Your task to perform on an android device: Open notification settings Image 0: 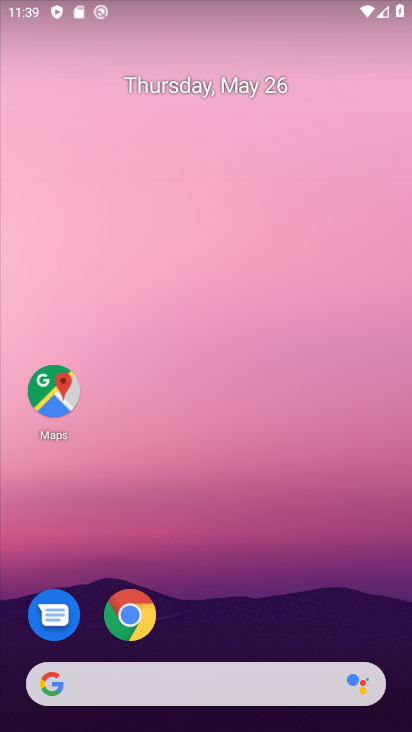
Step 0: press home button
Your task to perform on an android device: Open notification settings Image 1: 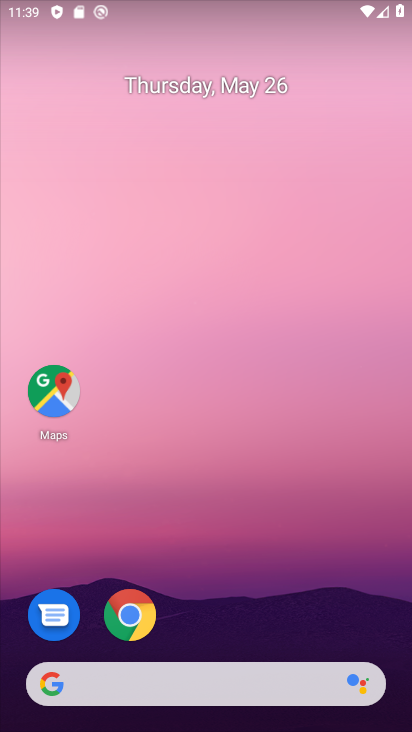
Step 1: drag from (280, 646) to (237, 41)
Your task to perform on an android device: Open notification settings Image 2: 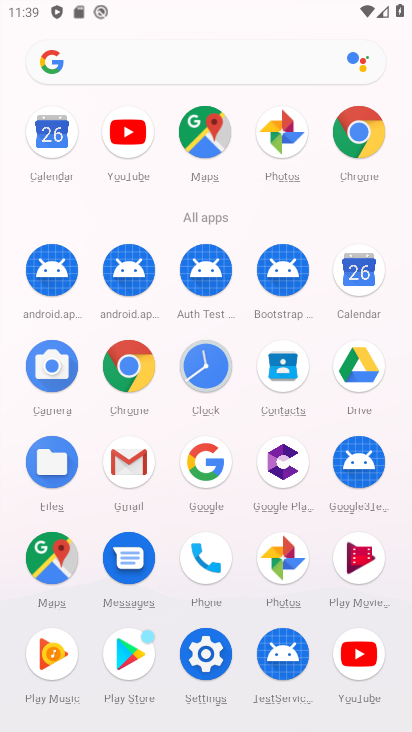
Step 2: click (206, 663)
Your task to perform on an android device: Open notification settings Image 3: 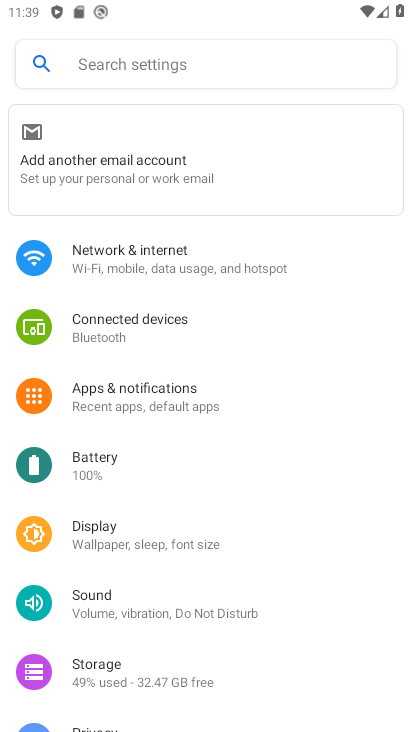
Step 3: click (186, 383)
Your task to perform on an android device: Open notification settings Image 4: 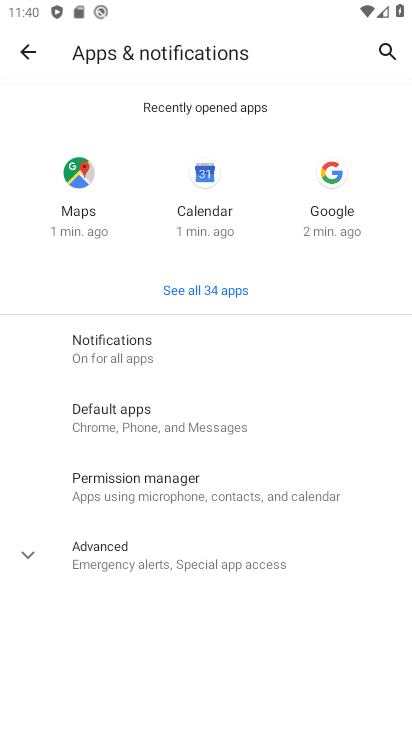
Step 4: task complete